Your task to perform on an android device: change your default location settings in chrome Image 0: 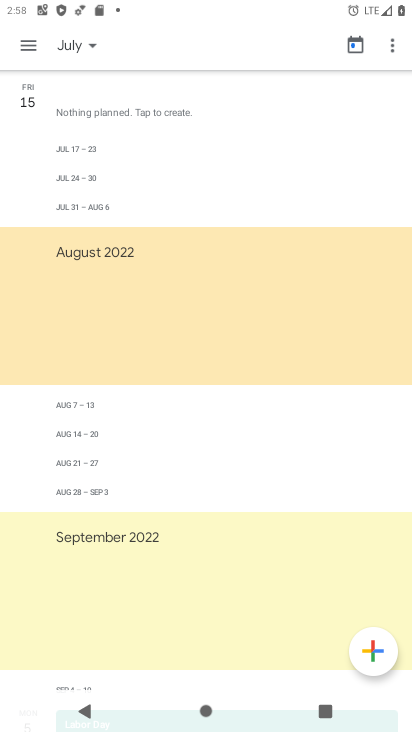
Step 0: press home button
Your task to perform on an android device: change your default location settings in chrome Image 1: 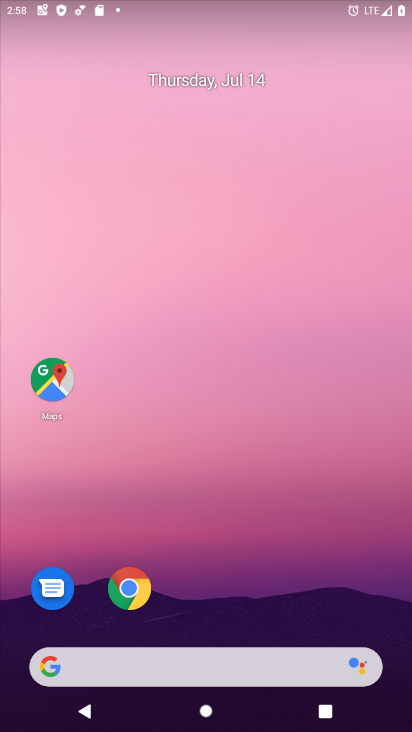
Step 1: drag from (174, 616) to (185, 328)
Your task to perform on an android device: change your default location settings in chrome Image 2: 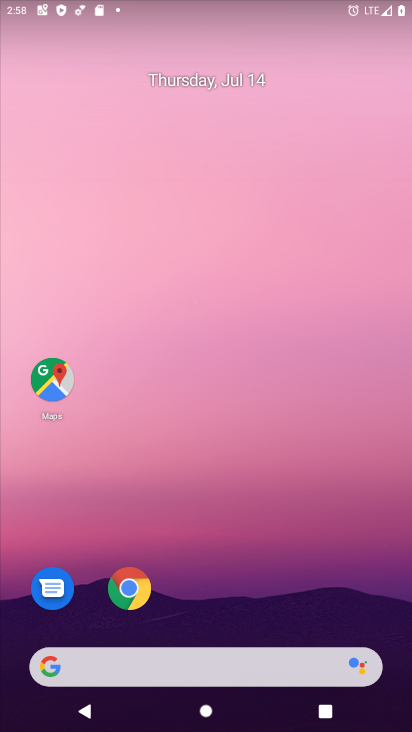
Step 2: drag from (264, 625) to (261, 149)
Your task to perform on an android device: change your default location settings in chrome Image 3: 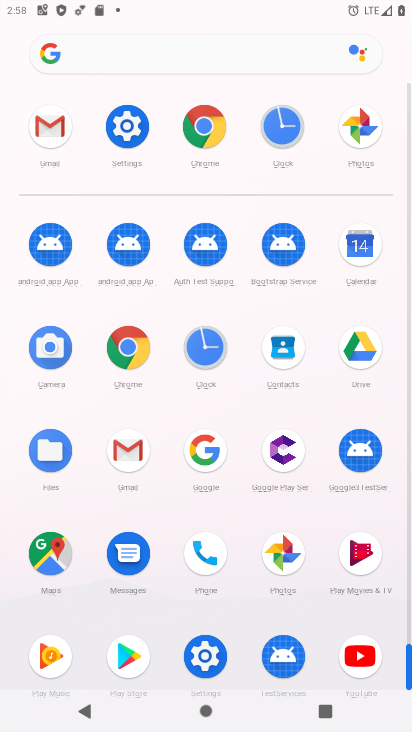
Step 3: click (121, 112)
Your task to perform on an android device: change your default location settings in chrome Image 4: 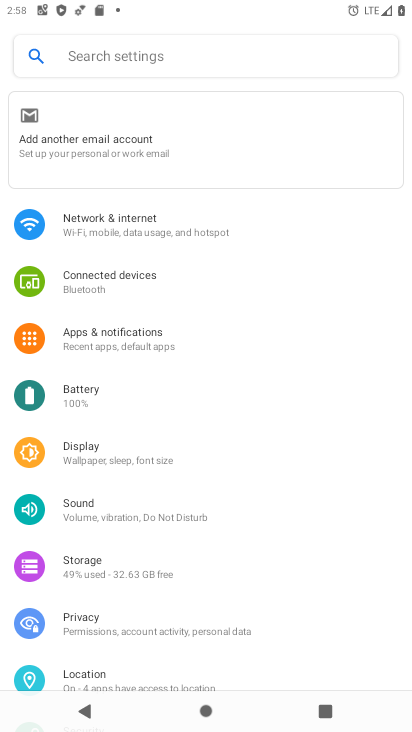
Step 4: press home button
Your task to perform on an android device: change your default location settings in chrome Image 5: 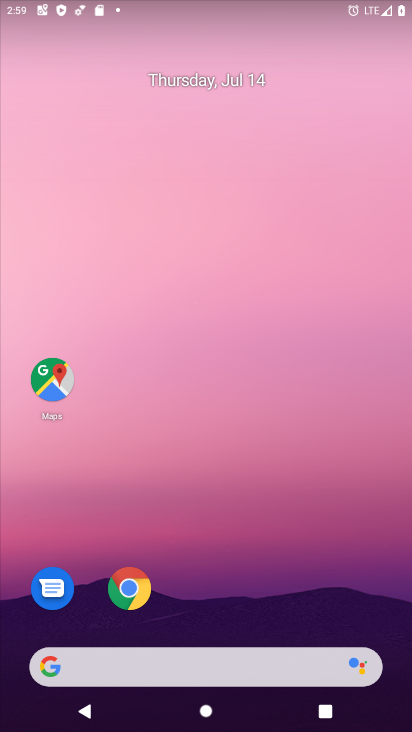
Step 5: click (207, 249)
Your task to perform on an android device: change your default location settings in chrome Image 6: 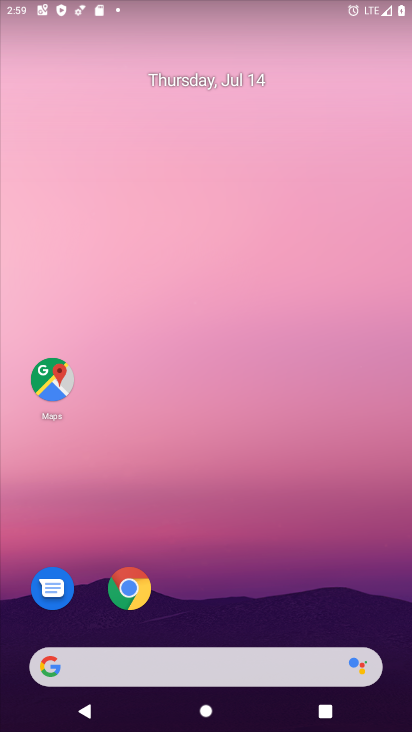
Step 6: drag from (222, 664) to (226, 289)
Your task to perform on an android device: change your default location settings in chrome Image 7: 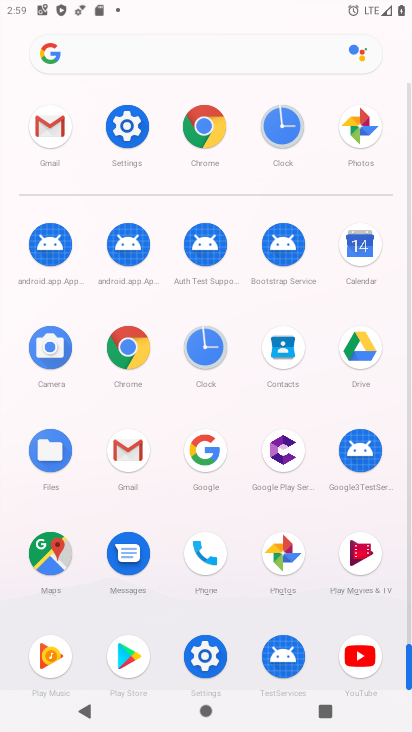
Step 7: click (197, 121)
Your task to perform on an android device: change your default location settings in chrome Image 8: 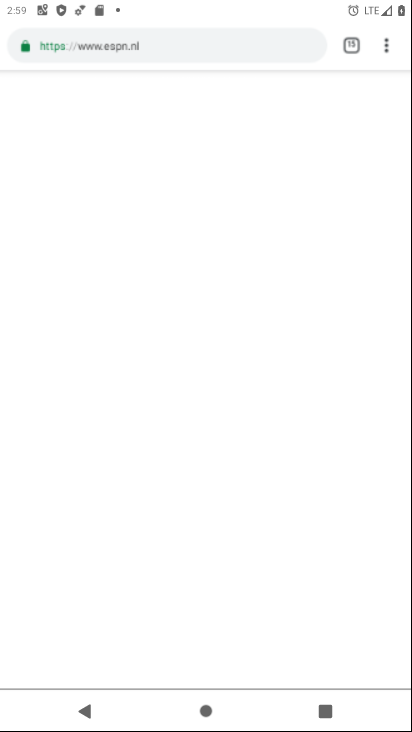
Step 8: click (397, 45)
Your task to perform on an android device: change your default location settings in chrome Image 9: 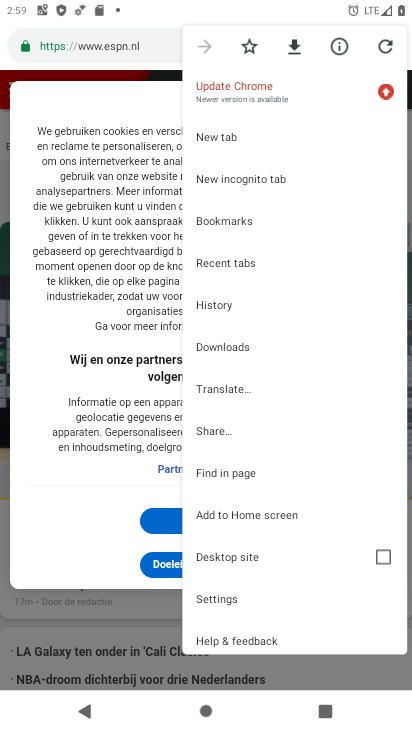
Step 9: click (253, 605)
Your task to perform on an android device: change your default location settings in chrome Image 10: 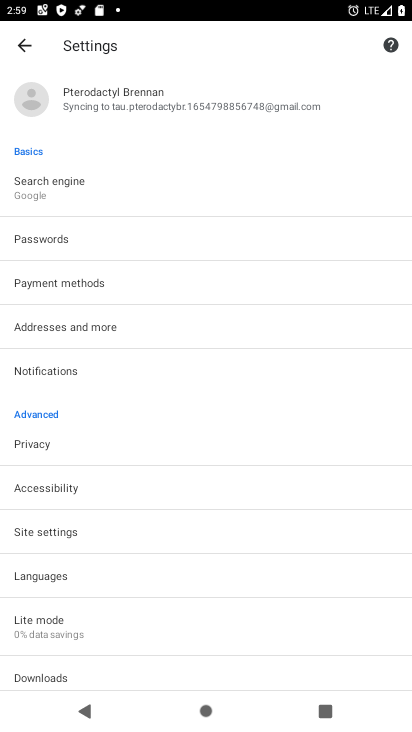
Step 10: click (92, 533)
Your task to perform on an android device: change your default location settings in chrome Image 11: 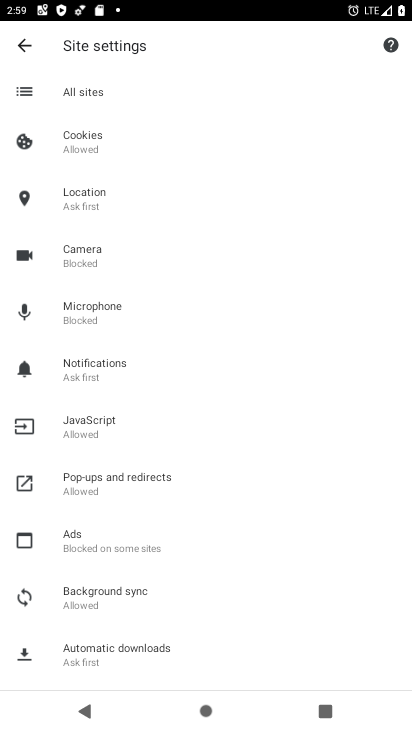
Step 11: click (90, 181)
Your task to perform on an android device: change your default location settings in chrome Image 12: 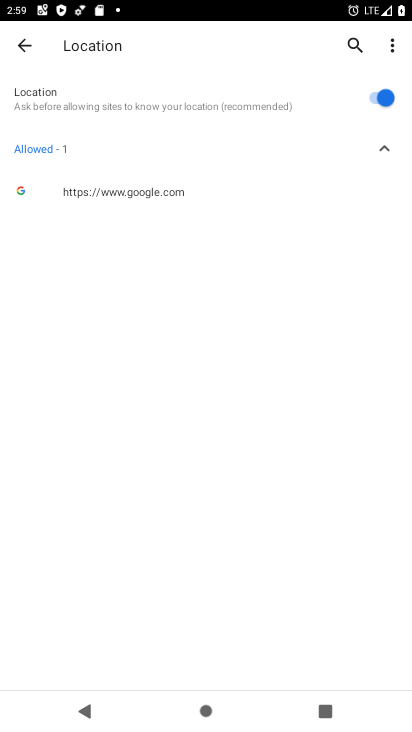
Step 12: click (366, 96)
Your task to perform on an android device: change your default location settings in chrome Image 13: 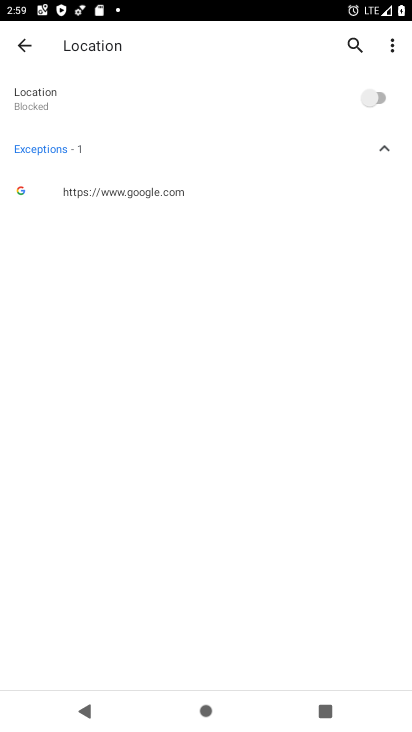
Step 13: task complete